Your task to perform on an android device: Show me productivity apps on the Play Store Image 0: 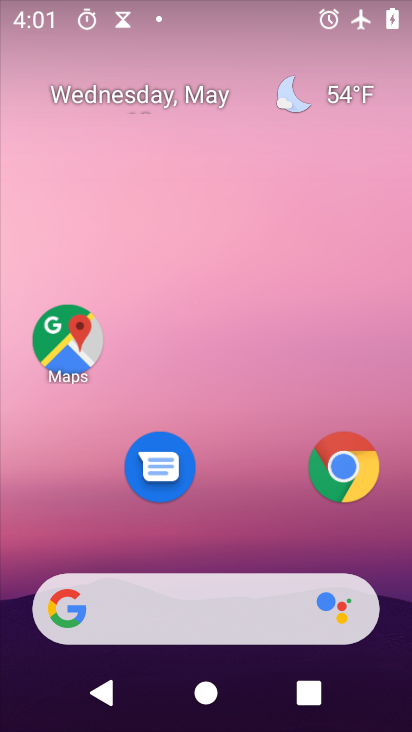
Step 0: drag from (259, 491) to (187, 76)
Your task to perform on an android device: Show me productivity apps on the Play Store Image 1: 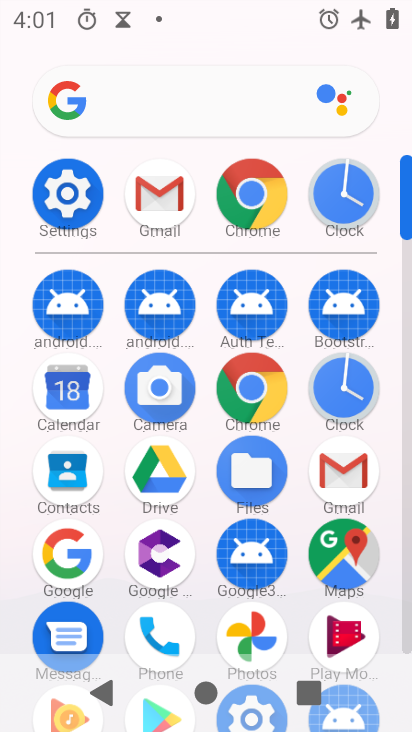
Step 1: click (407, 647)
Your task to perform on an android device: Show me productivity apps on the Play Store Image 2: 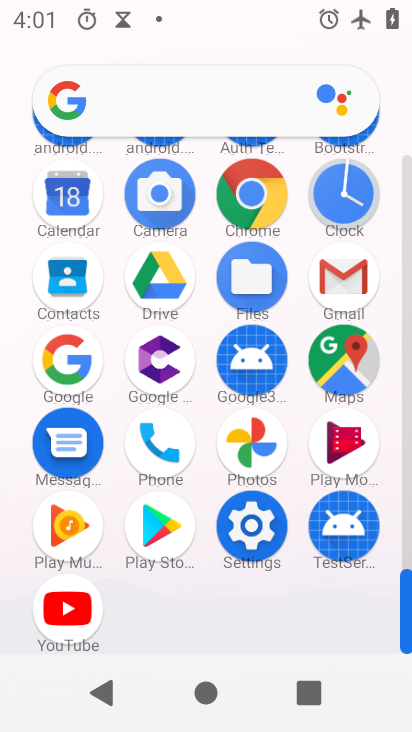
Step 2: click (165, 529)
Your task to perform on an android device: Show me productivity apps on the Play Store Image 3: 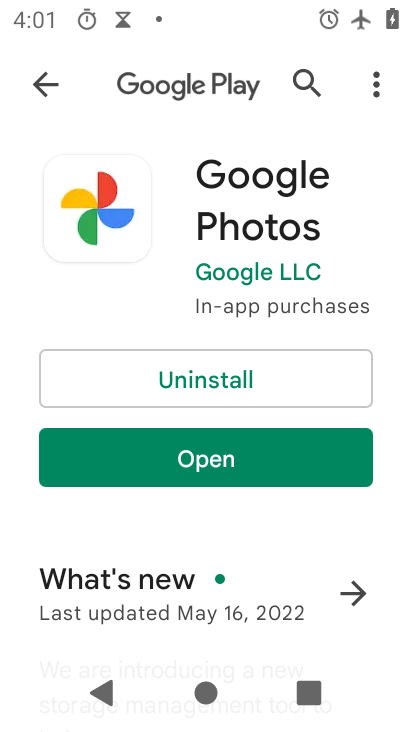
Step 3: click (31, 78)
Your task to perform on an android device: Show me productivity apps on the Play Store Image 4: 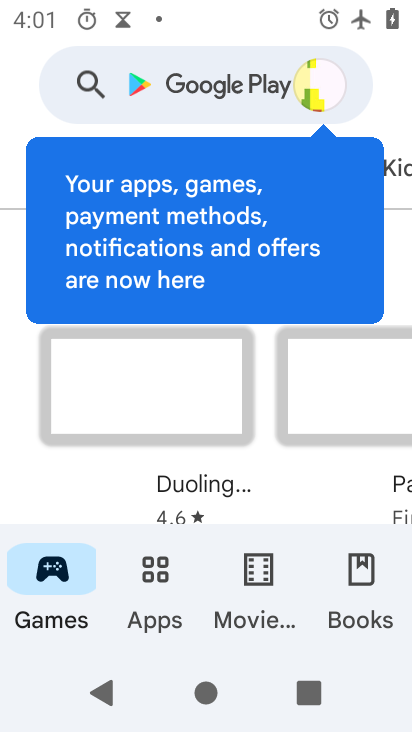
Step 4: click (170, 592)
Your task to perform on an android device: Show me productivity apps on the Play Store Image 5: 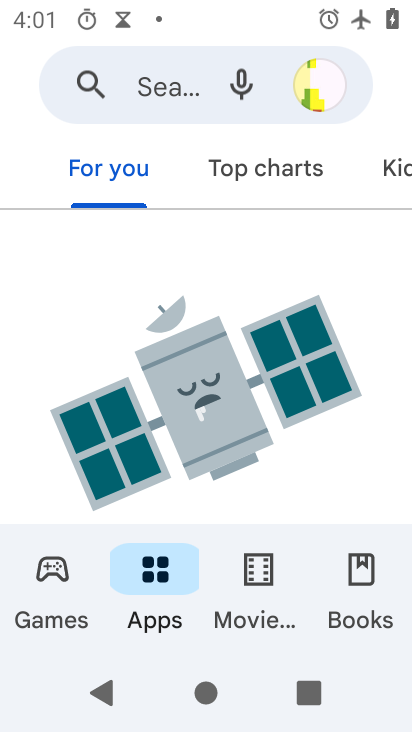
Step 5: drag from (386, 182) to (98, 168)
Your task to perform on an android device: Show me productivity apps on the Play Store Image 6: 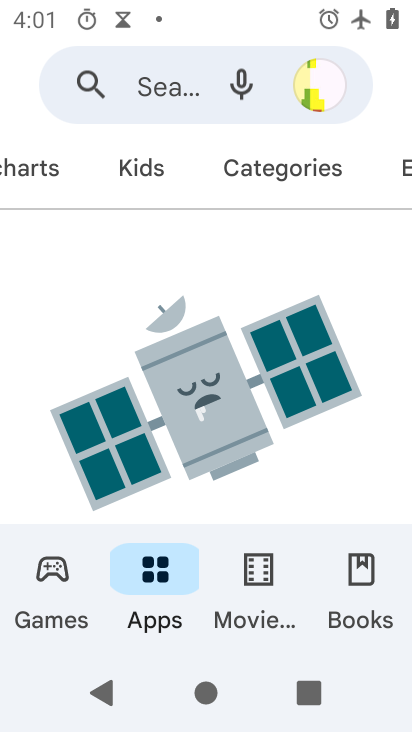
Step 6: click (248, 158)
Your task to perform on an android device: Show me productivity apps on the Play Store Image 7: 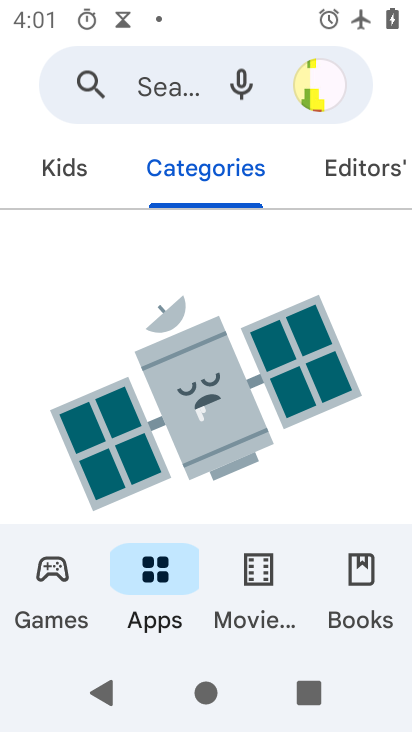
Step 7: drag from (282, 13) to (352, 374)
Your task to perform on an android device: Show me productivity apps on the Play Store Image 8: 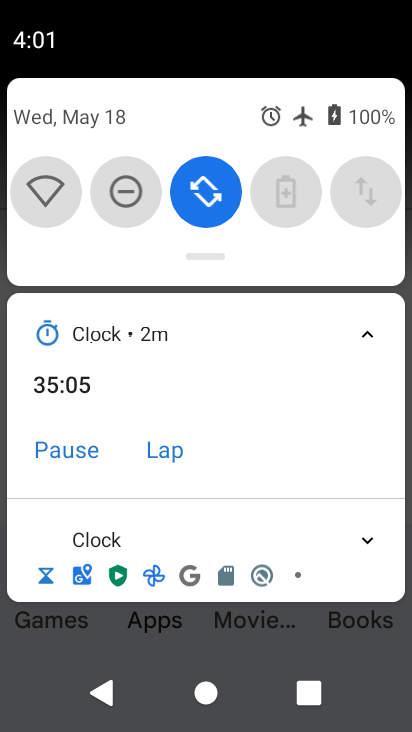
Step 8: drag from (244, 238) to (282, 536)
Your task to perform on an android device: Show me productivity apps on the Play Store Image 9: 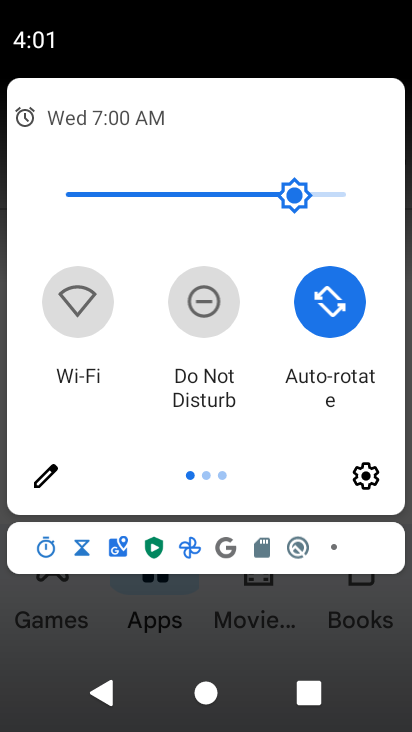
Step 9: drag from (382, 400) to (43, 401)
Your task to perform on an android device: Show me productivity apps on the Play Store Image 10: 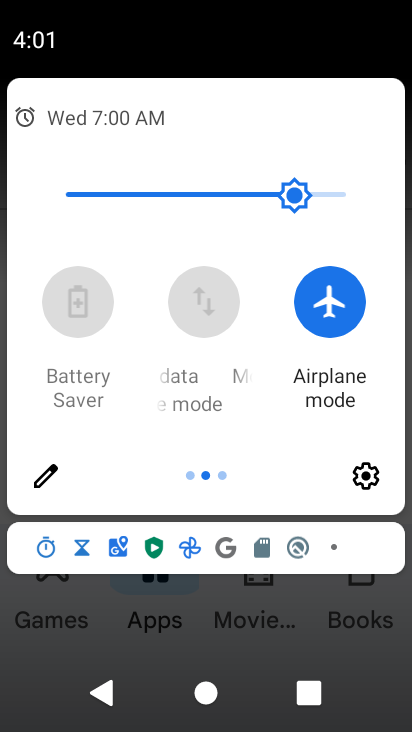
Step 10: click (347, 307)
Your task to perform on an android device: Show me productivity apps on the Play Store Image 11: 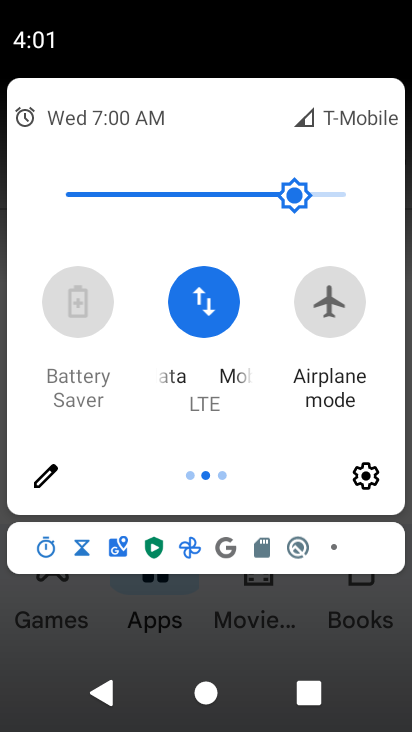
Step 11: click (366, 602)
Your task to perform on an android device: Show me productivity apps on the Play Store Image 12: 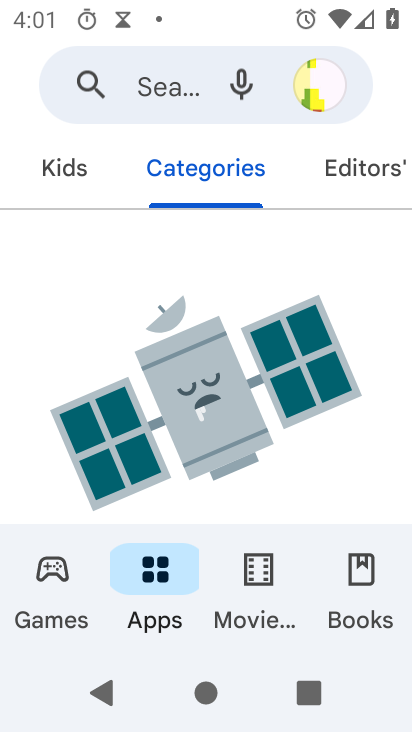
Step 12: click (247, 168)
Your task to perform on an android device: Show me productivity apps on the Play Store Image 13: 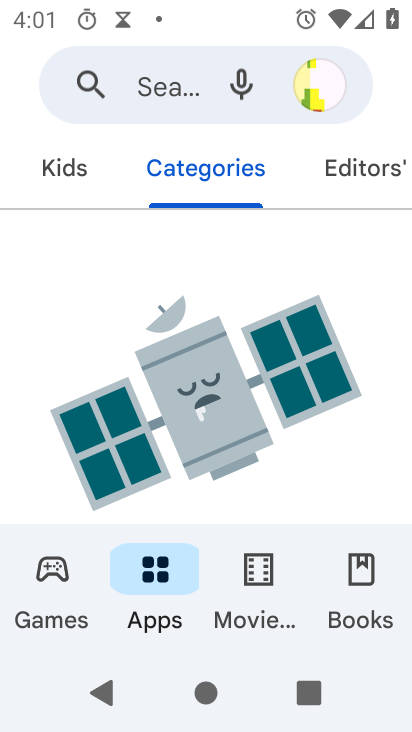
Step 13: click (182, 195)
Your task to perform on an android device: Show me productivity apps on the Play Store Image 14: 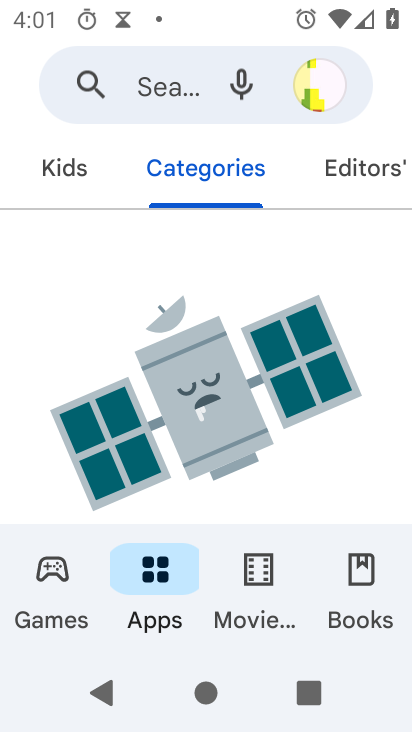
Step 14: click (339, 176)
Your task to perform on an android device: Show me productivity apps on the Play Store Image 15: 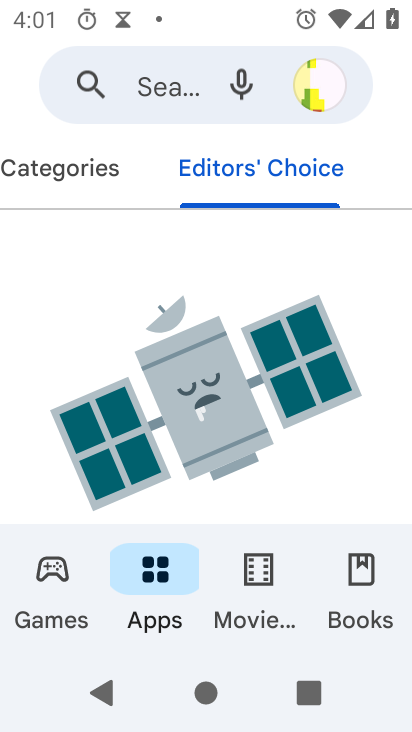
Step 15: click (98, 170)
Your task to perform on an android device: Show me productivity apps on the Play Store Image 16: 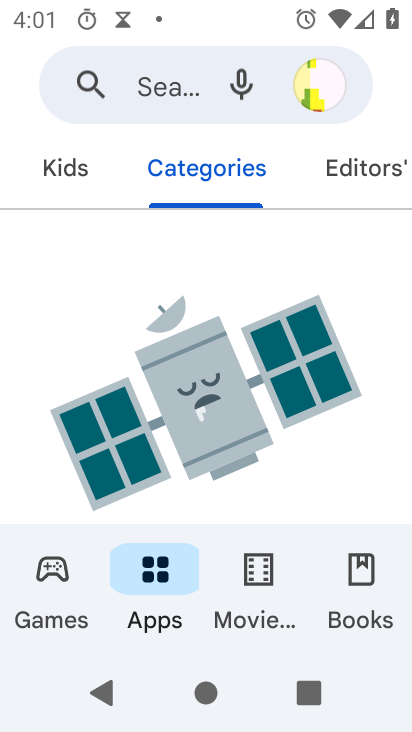
Step 16: click (201, 189)
Your task to perform on an android device: Show me productivity apps on the Play Store Image 17: 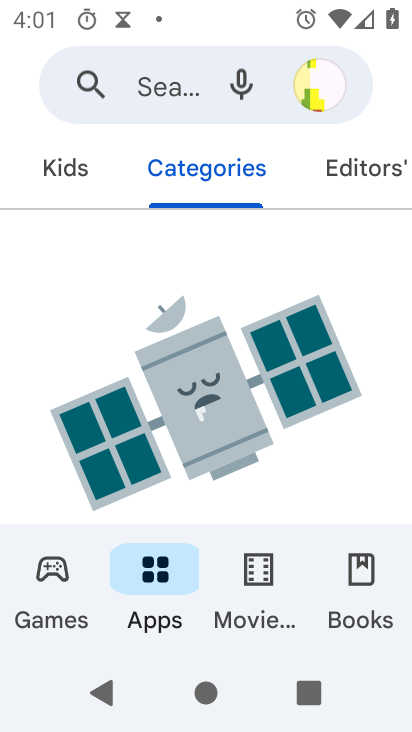
Step 17: click (201, 189)
Your task to perform on an android device: Show me productivity apps on the Play Store Image 18: 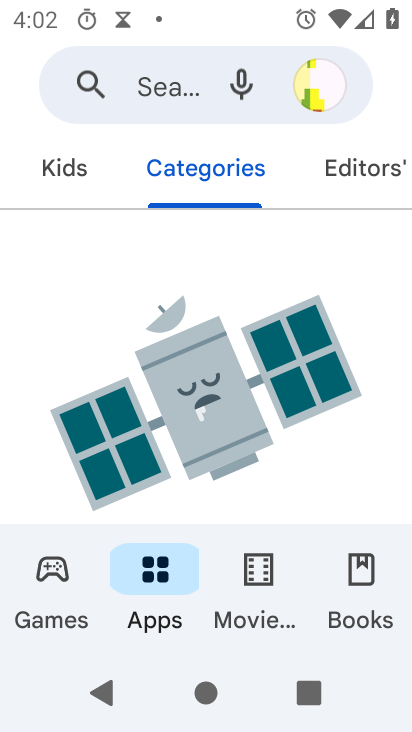
Step 18: task complete